Your task to perform on an android device: turn off location Image 0: 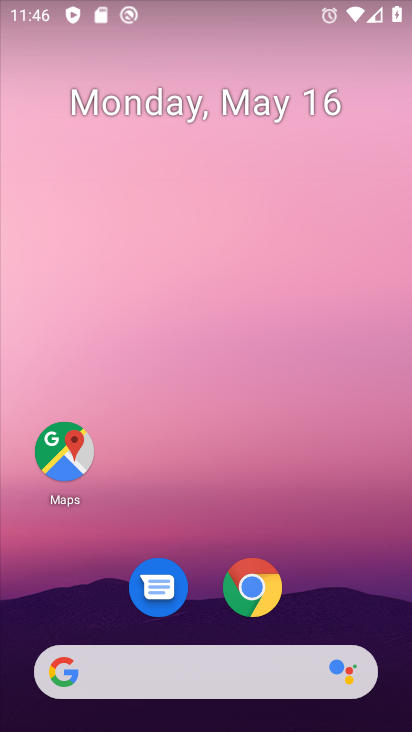
Step 0: drag from (375, 612) to (293, 144)
Your task to perform on an android device: turn off location Image 1: 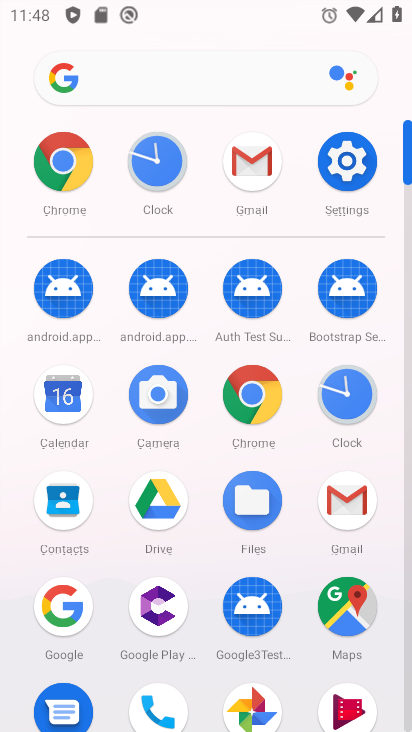
Step 1: click (341, 172)
Your task to perform on an android device: turn off location Image 2: 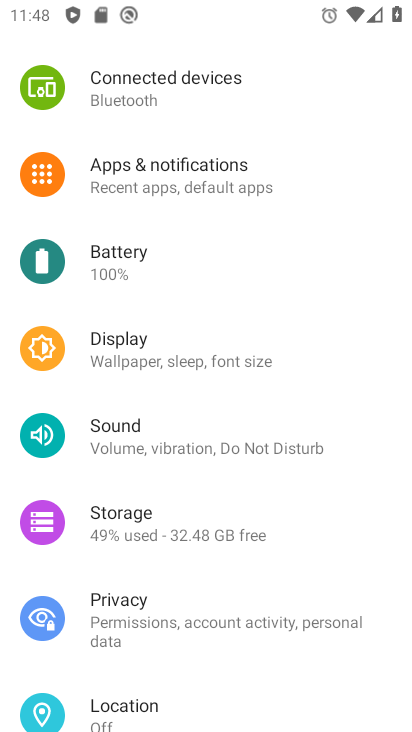
Step 2: click (173, 705)
Your task to perform on an android device: turn off location Image 3: 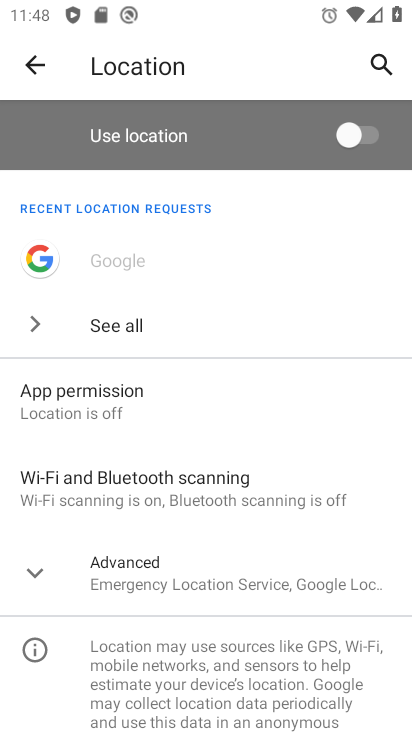
Step 3: task complete